Your task to perform on an android device: Open the calendar app, open the side menu, and click the "Day" option Image 0: 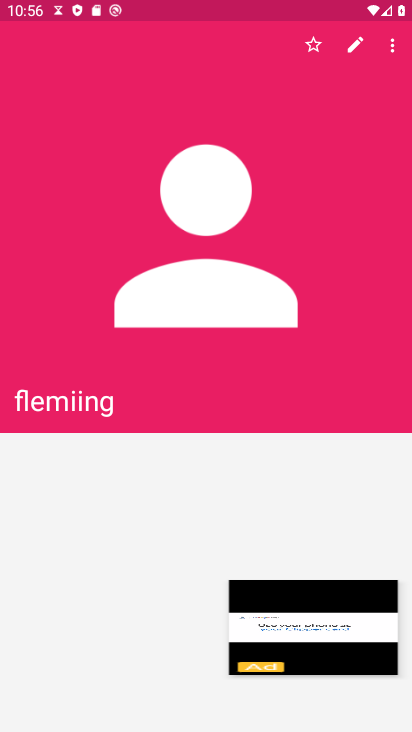
Step 0: press home button
Your task to perform on an android device: Open the calendar app, open the side menu, and click the "Day" option Image 1: 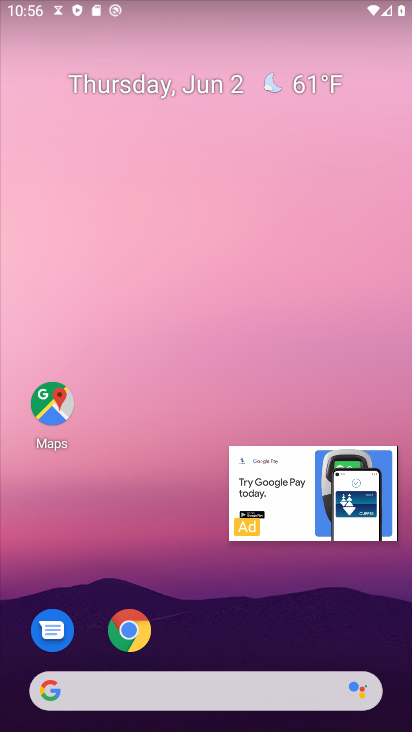
Step 1: click (354, 470)
Your task to perform on an android device: Open the calendar app, open the side menu, and click the "Day" option Image 2: 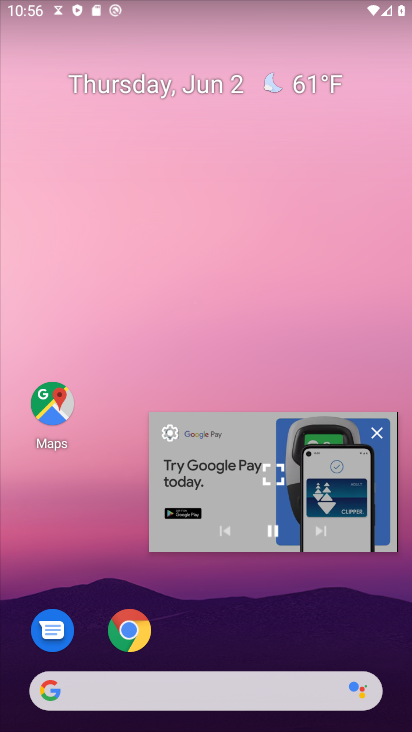
Step 2: click (376, 433)
Your task to perform on an android device: Open the calendar app, open the side menu, and click the "Day" option Image 3: 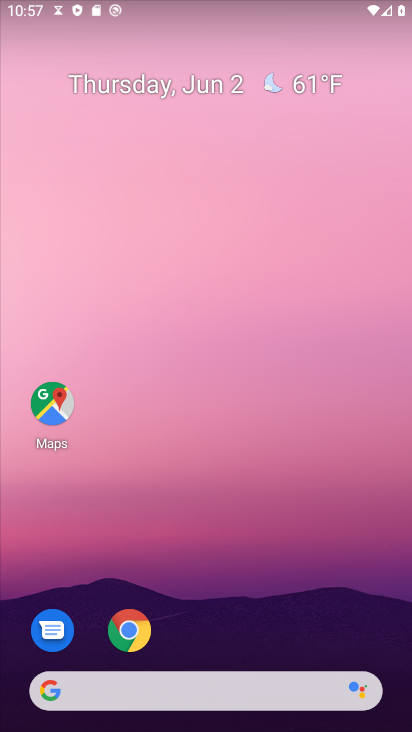
Step 3: drag from (224, 648) to (277, 17)
Your task to perform on an android device: Open the calendar app, open the side menu, and click the "Day" option Image 4: 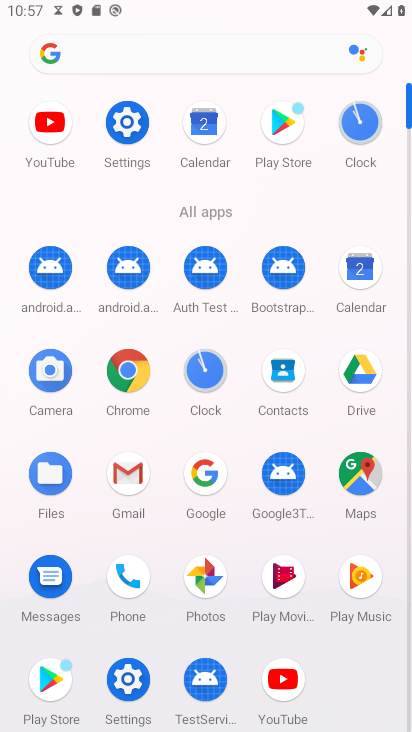
Step 4: click (372, 294)
Your task to perform on an android device: Open the calendar app, open the side menu, and click the "Day" option Image 5: 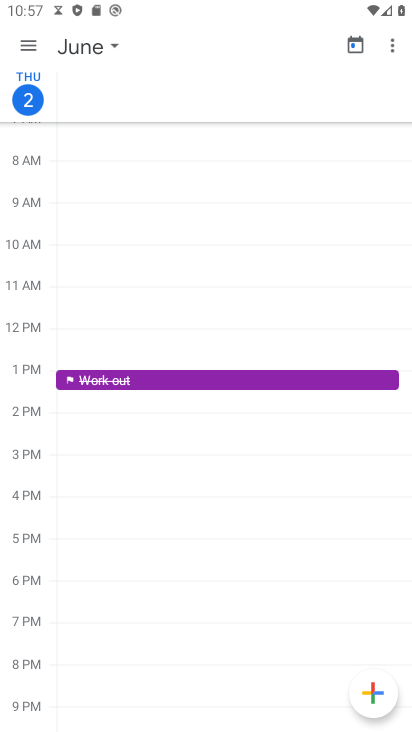
Step 5: click (20, 39)
Your task to perform on an android device: Open the calendar app, open the side menu, and click the "Day" option Image 6: 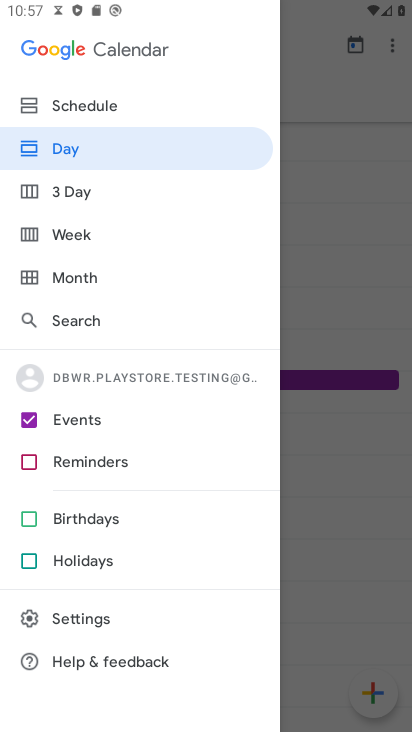
Step 6: task complete